Your task to perform on an android device: turn off notifications in google photos Image 0: 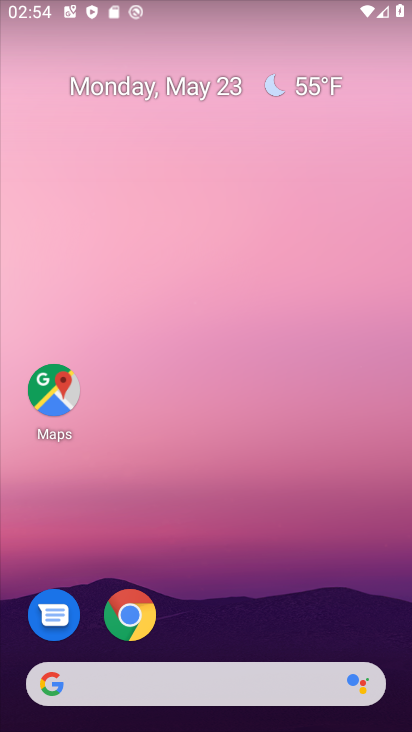
Step 0: drag from (380, 643) to (374, 327)
Your task to perform on an android device: turn off notifications in google photos Image 1: 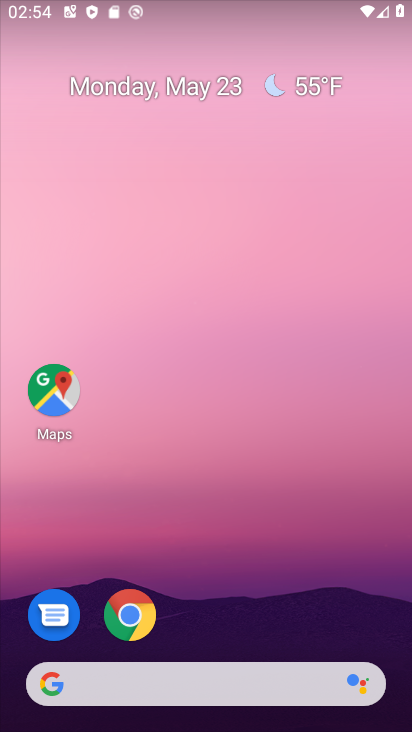
Step 1: drag from (374, 624) to (378, 217)
Your task to perform on an android device: turn off notifications in google photos Image 2: 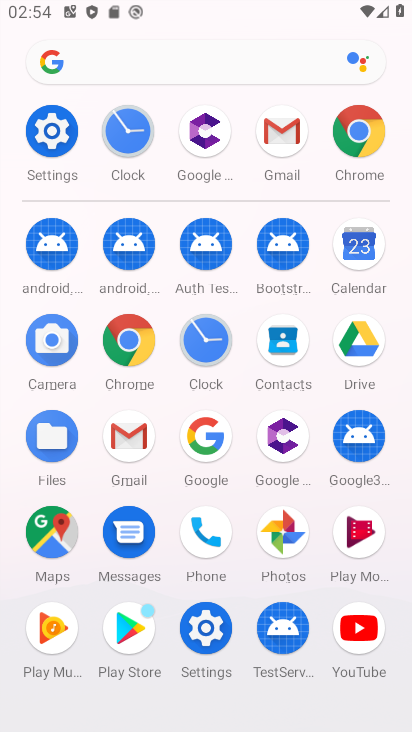
Step 2: click (288, 545)
Your task to perform on an android device: turn off notifications in google photos Image 3: 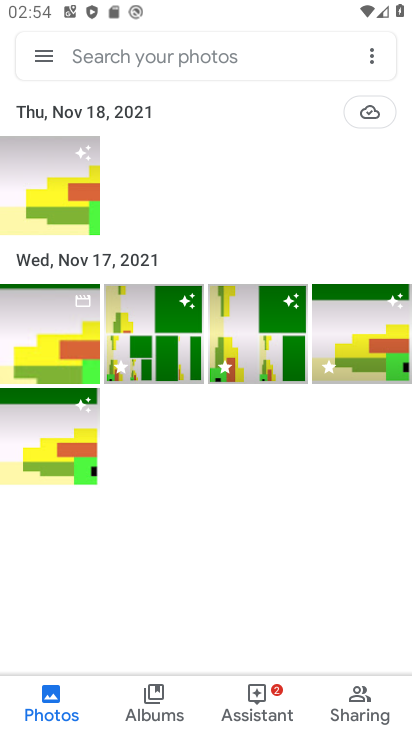
Step 3: click (41, 58)
Your task to perform on an android device: turn off notifications in google photos Image 4: 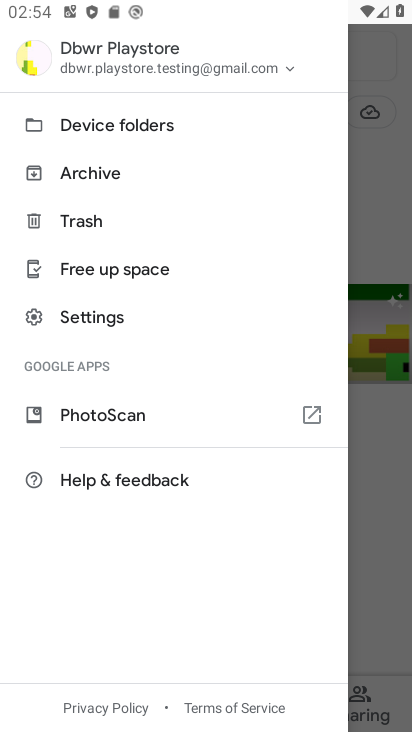
Step 4: click (120, 320)
Your task to perform on an android device: turn off notifications in google photos Image 5: 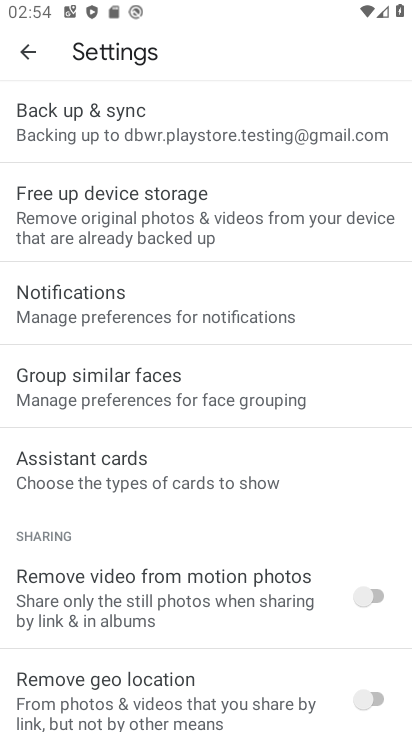
Step 5: drag from (322, 548) to (329, 444)
Your task to perform on an android device: turn off notifications in google photos Image 6: 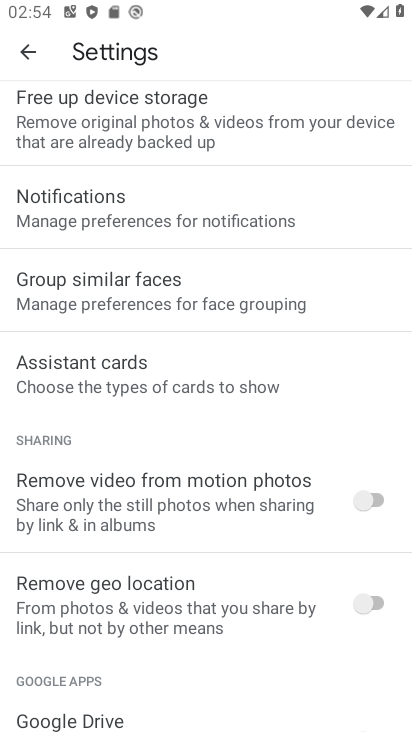
Step 6: drag from (318, 635) to (324, 492)
Your task to perform on an android device: turn off notifications in google photos Image 7: 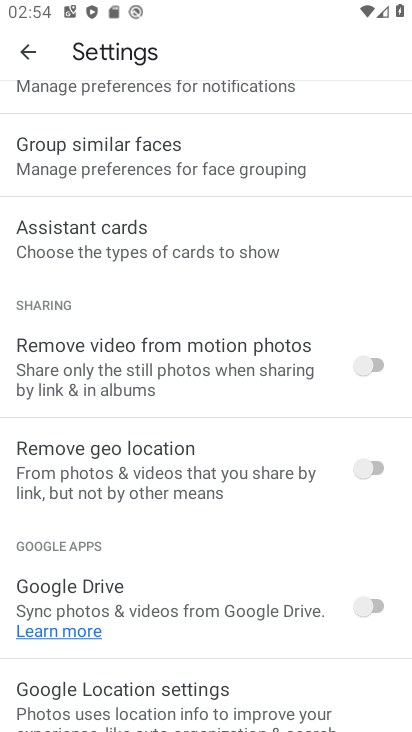
Step 7: drag from (316, 665) to (325, 500)
Your task to perform on an android device: turn off notifications in google photos Image 8: 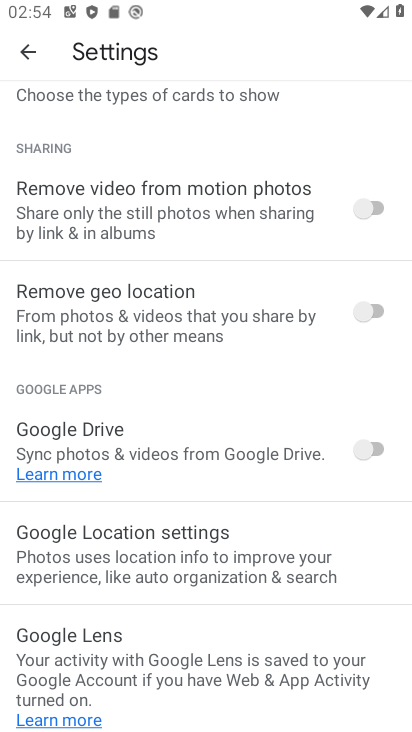
Step 8: drag from (301, 660) to (306, 493)
Your task to perform on an android device: turn off notifications in google photos Image 9: 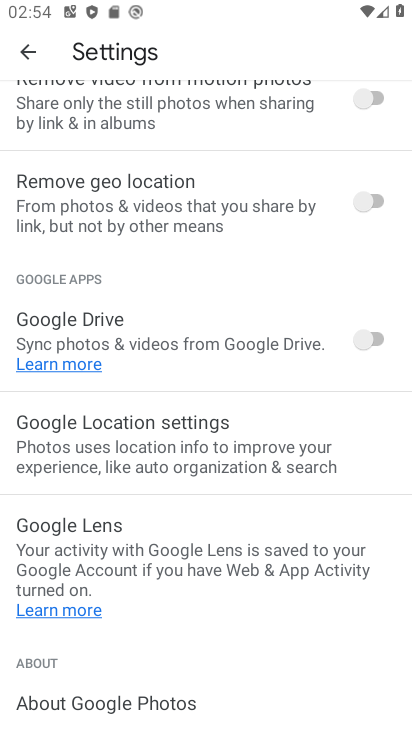
Step 9: drag from (297, 364) to (278, 461)
Your task to perform on an android device: turn off notifications in google photos Image 10: 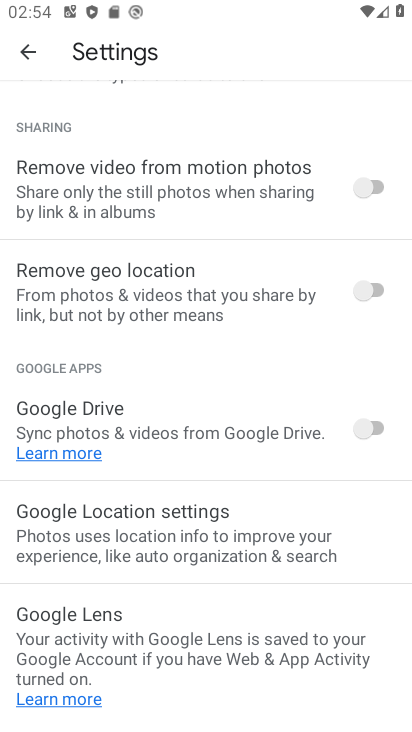
Step 10: drag from (299, 253) to (275, 392)
Your task to perform on an android device: turn off notifications in google photos Image 11: 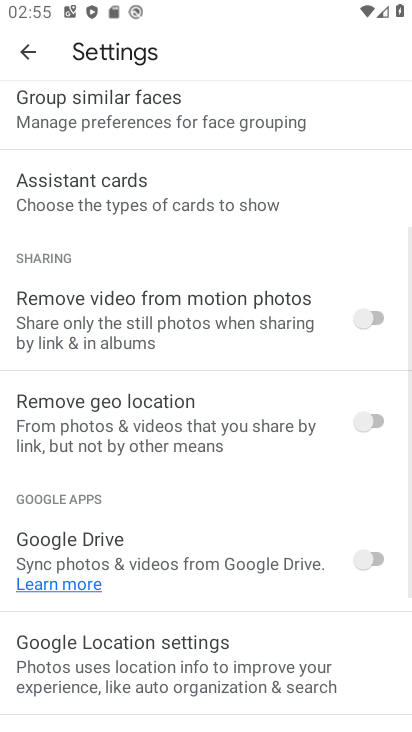
Step 11: drag from (287, 239) to (288, 373)
Your task to perform on an android device: turn off notifications in google photos Image 12: 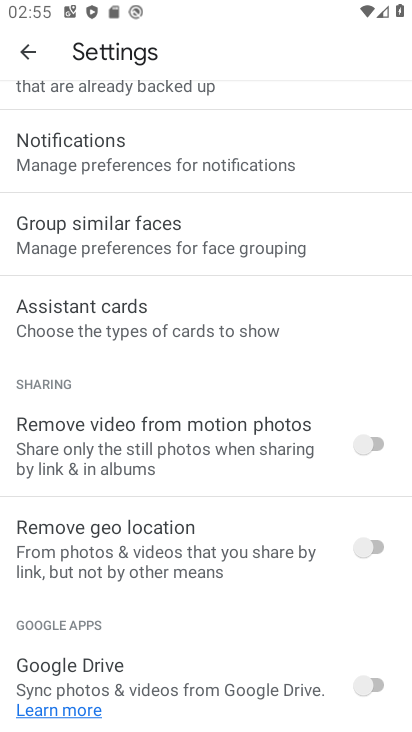
Step 12: drag from (286, 234) to (265, 401)
Your task to perform on an android device: turn off notifications in google photos Image 13: 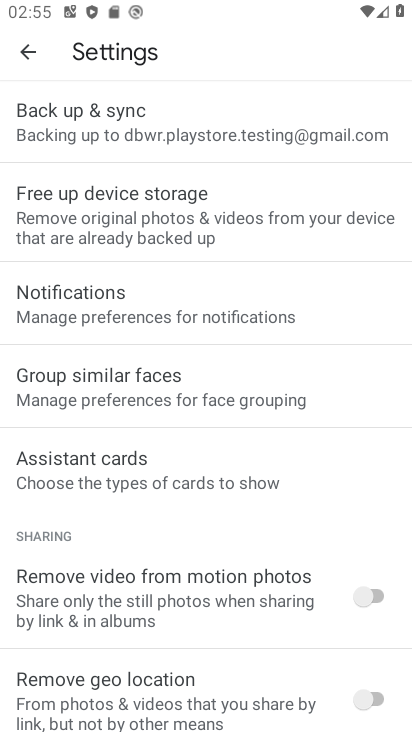
Step 13: drag from (245, 266) to (238, 415)
Your task to perform on an android device: turn off notifications in google photos Image 14: 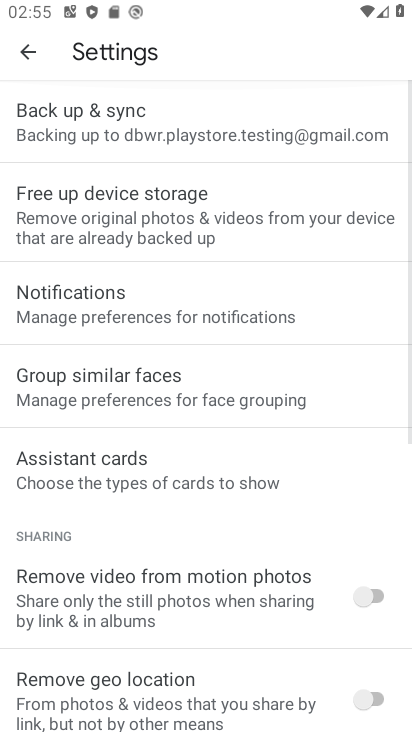
Step 14: click (233, 322)
Your task to perform on an android device: turn off notifications in google photos Image 15: 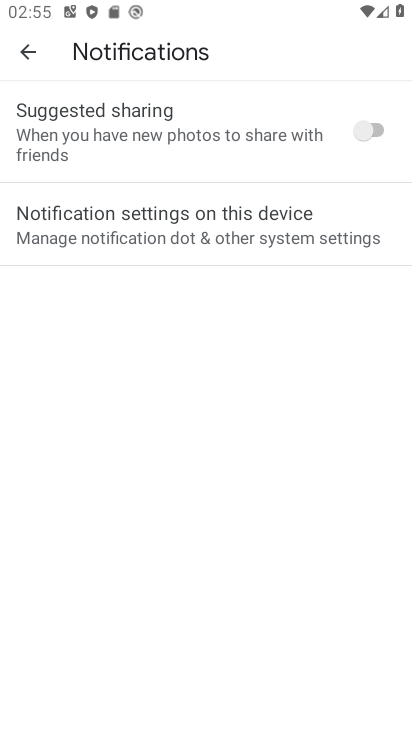
Step 15: click (235, 237)
Your task to perform on an android device: turn off notifications in google photos Image 16: 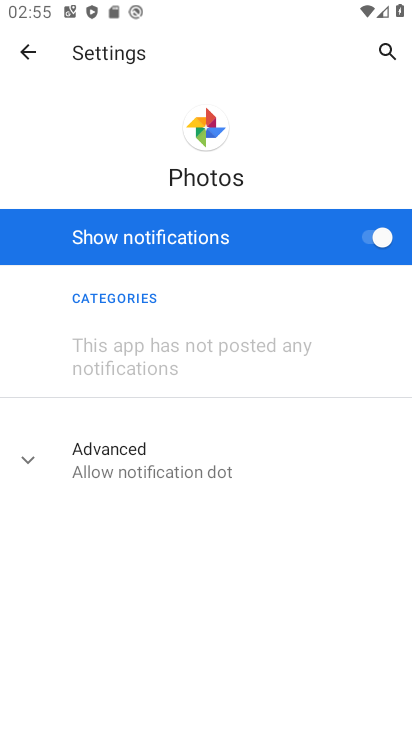
Step 16: click (370, 237)
Your task to perform on an android device: turn off notifications in google photos Image 17: 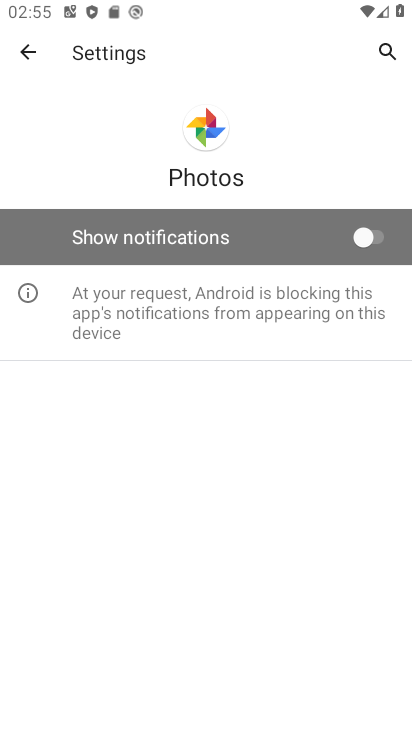
Step 17: task complete